Your task to perform on an android device: turn on showing notifications on the lock screen Image 0: 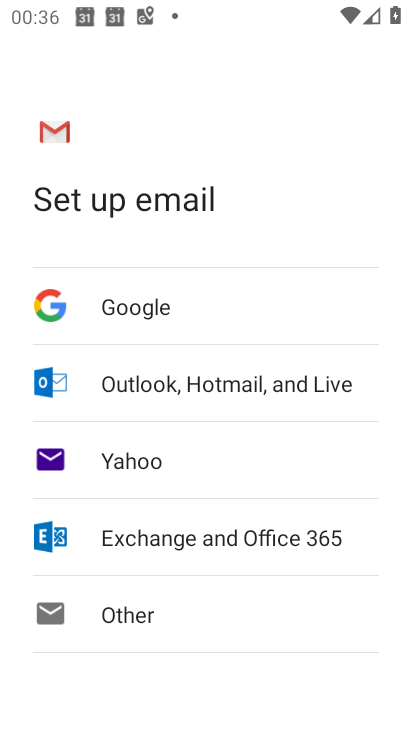
Step 0: press home button
Your task to perform on an android device: turn on showing notifications on the lock screen Image 1: 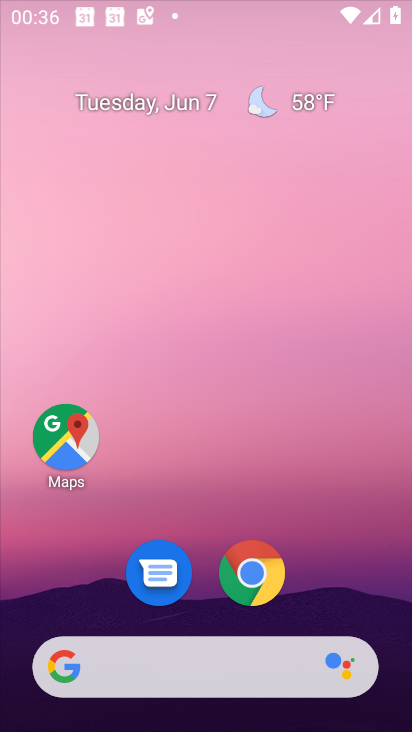
Step 1: drag from (313, 578) to (311, 144)
Your task to perform on an android device: turn on showing notifications on the lock screen Image 2: 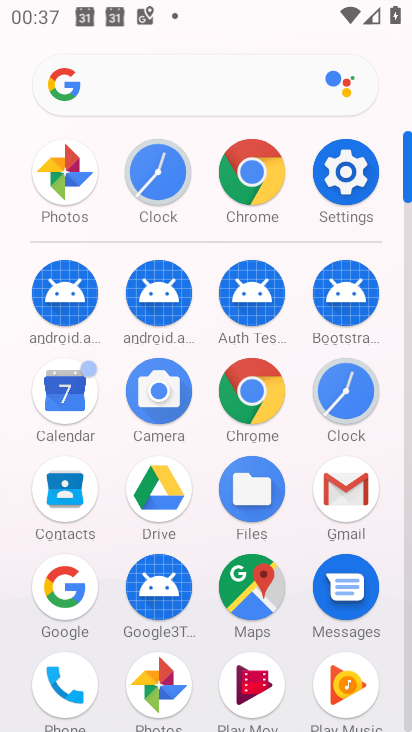
Step 2: click (361, 167)
Your task to perform on an android device: turn on showing notifications on the lock screen Image 3: 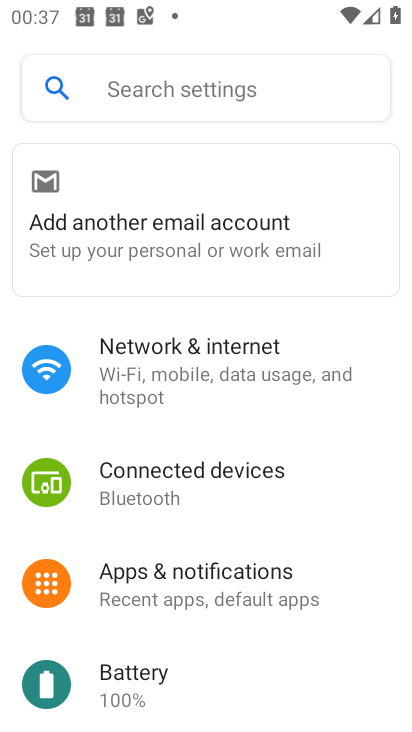
Step 3: click (223, 600)
Your task to perform on an android device: turn on showing notifications on the lock screen Image 4: 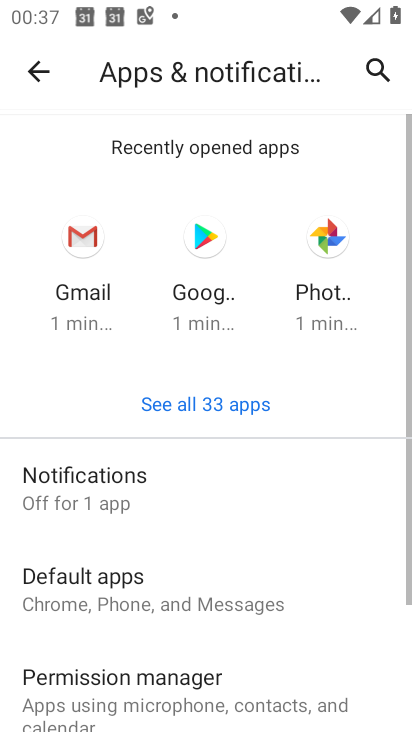
Step 4: drag from (241, 602) to (220, 474)
Your task to perform on an android device: turn on showing notifications on the lock screen Image 5: 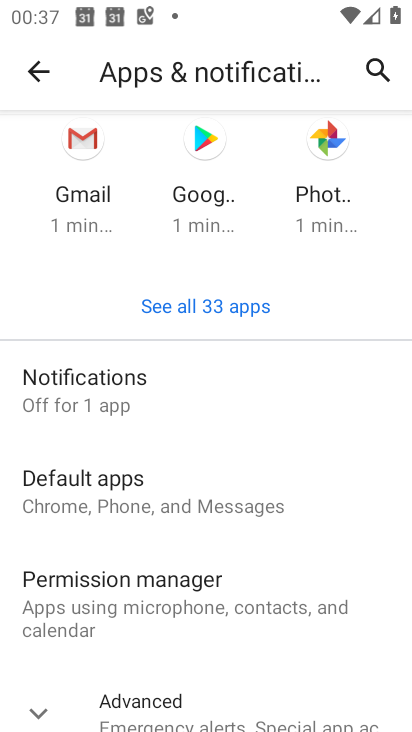
Step 5: click (121, 404)
Your task to perform on an android device: turn on showing notifications on the lock screen Image 6: 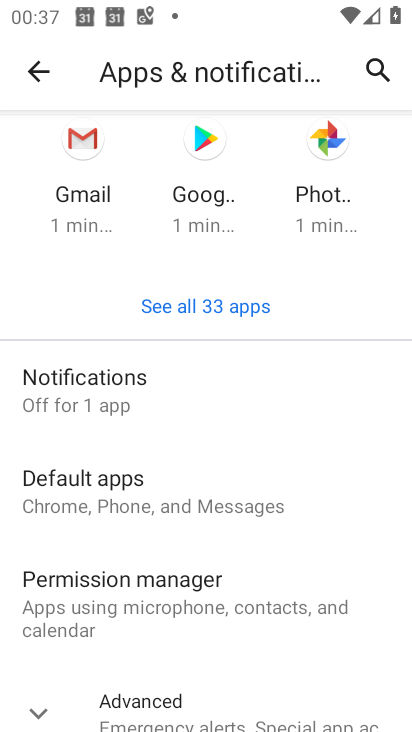
Step 6: drag from (272, 605) to (267, 157)
Your task to perform on an android device: turn on showing notifications on the lock screen Image 7: 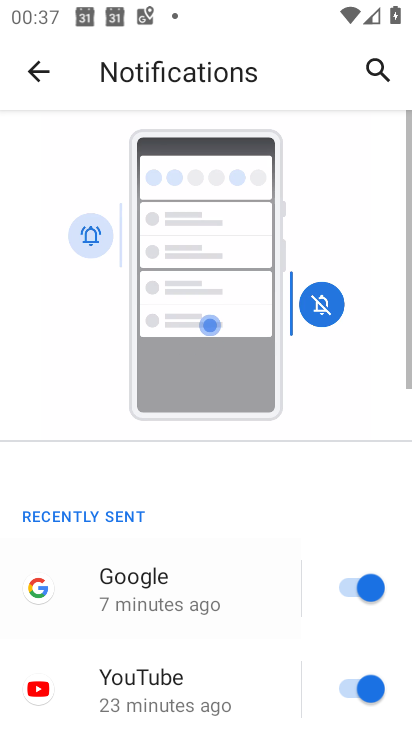
Step 7: drag from (265, 604) to (257, 207)
Your task to perform on an android device: turn on showing notifications on the lock screen Image 8: 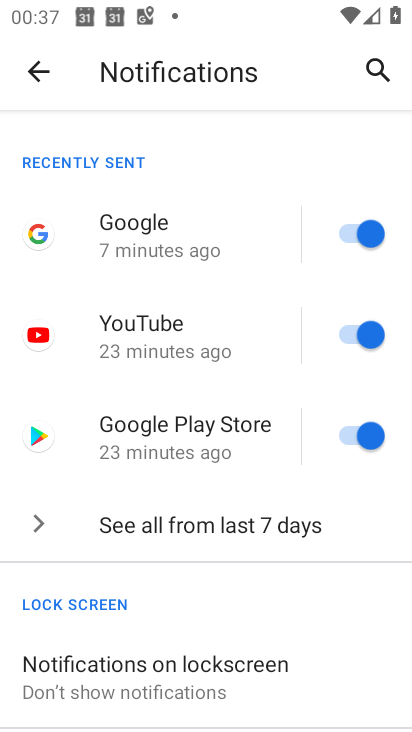
Step 8: click (228, 647)
Your task to perform on an android device: turn on showing notifications on the lock screen Image 9: 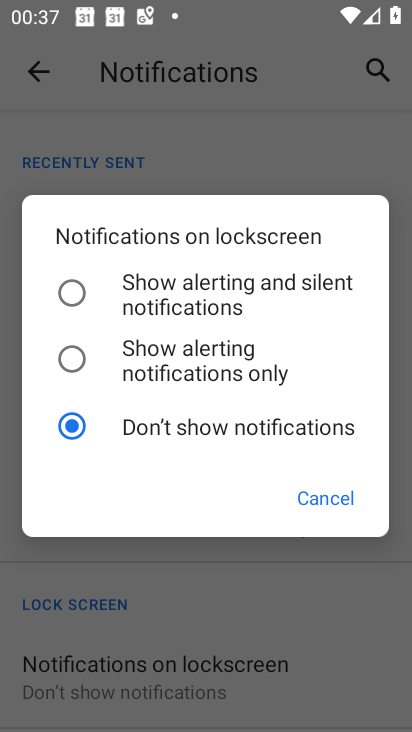
Step 9: click (162, 365)
Your task to perform on an android device: turn on showing notifications on the lock screen Image 10: 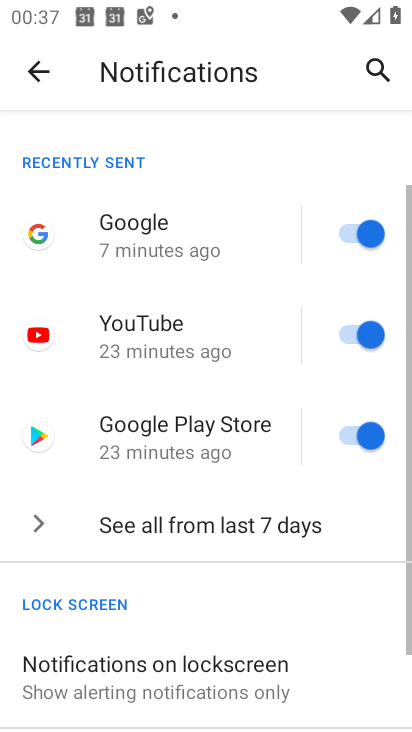
Step 10: task complete